Your task to perform on an android device: Is it going to rain this weekend? Image 0: 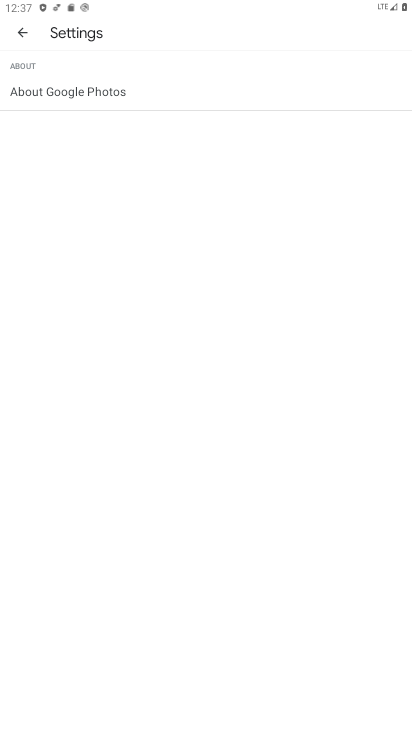
Step 0: press home button
Your task to perform on an android device: Is it going to rain this weekend? Image 1: 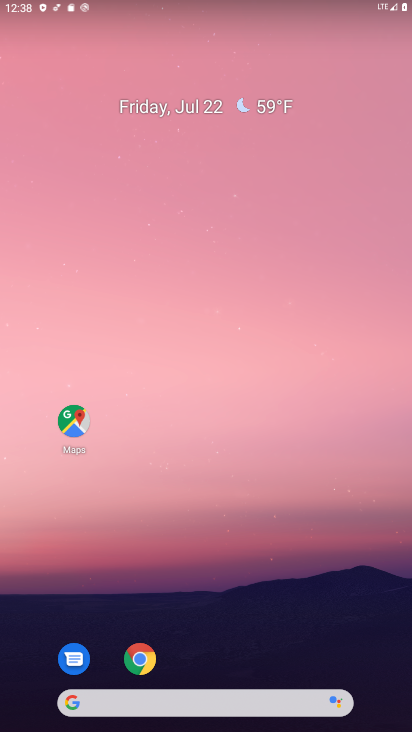
Step 1: drag from (209, 664) to (229, 84)
Your task to perform on an android device: Is it going to rain this weekend? Image 2: 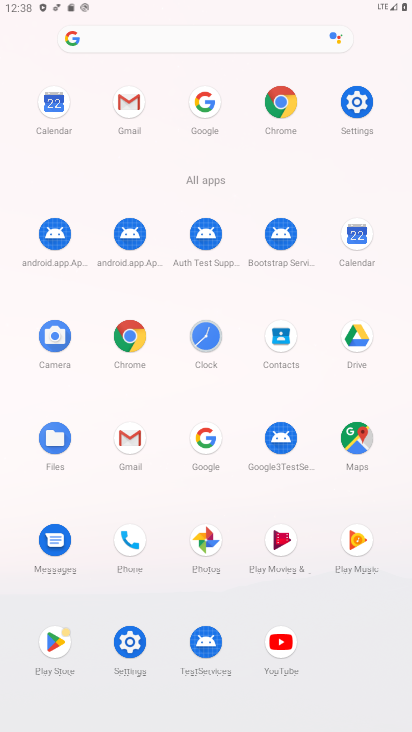
Step 2: click (206, 443)
Your task to perform on an android device: Is it going to rain this weekend? Image 3: 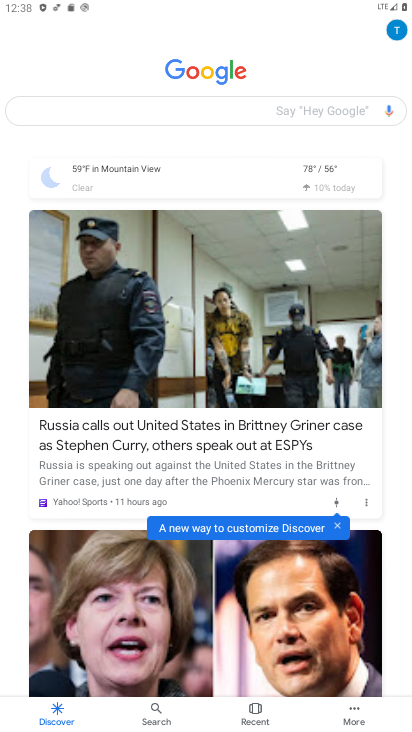
Step 3: click (107, 111)
Your task to perform on an android device: Is it going to rain this weekend? Image 4: 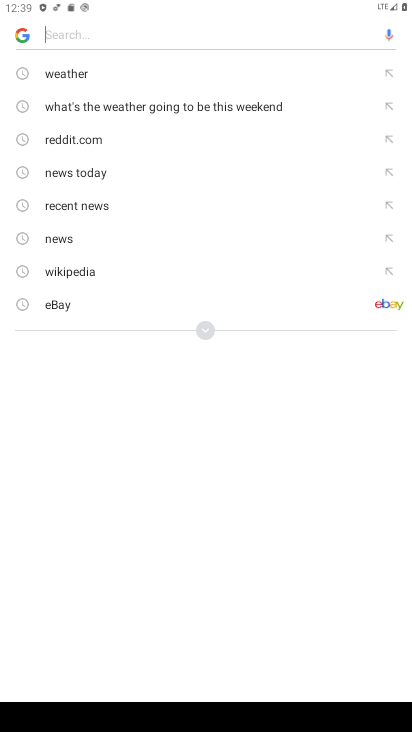
Step 4: click (85, 72)
Your task to perform on an android device: Is it going to rain this weekend? Image 5: 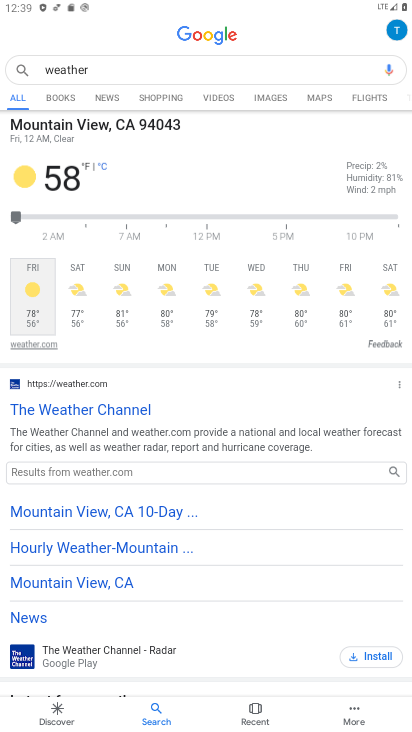
Step 5: task complete